Your task to perform on an android device: Turn on the flashlight Image 0: 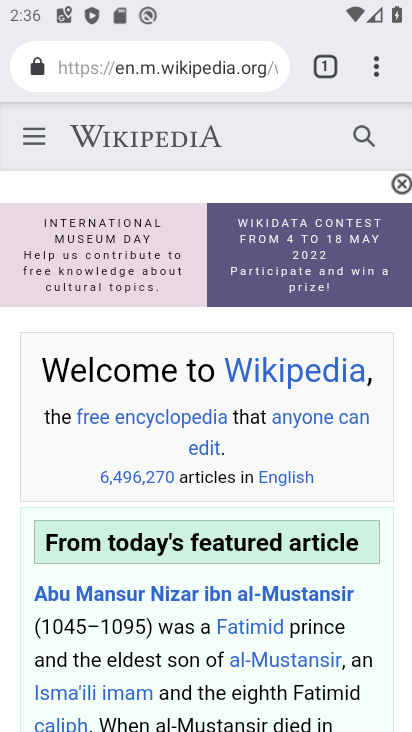
Step 0: press home button
Your task to perform on an android device: Turn on the flashlight Image 1: 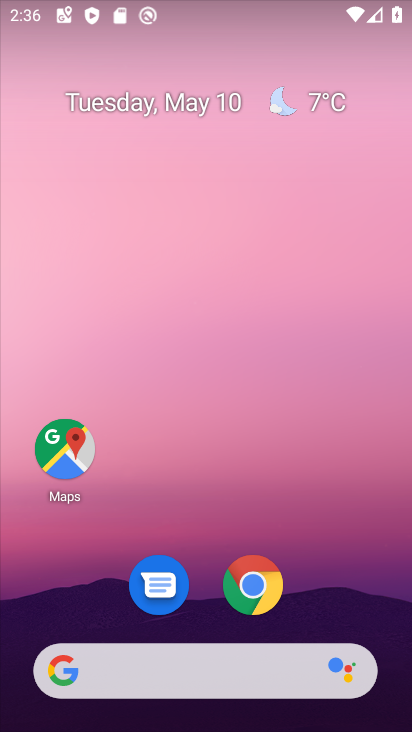
Step 1: drag from (281, 443) to (284, 60)
Your task to perform on an android device: Turn on the flashlight Image 2: 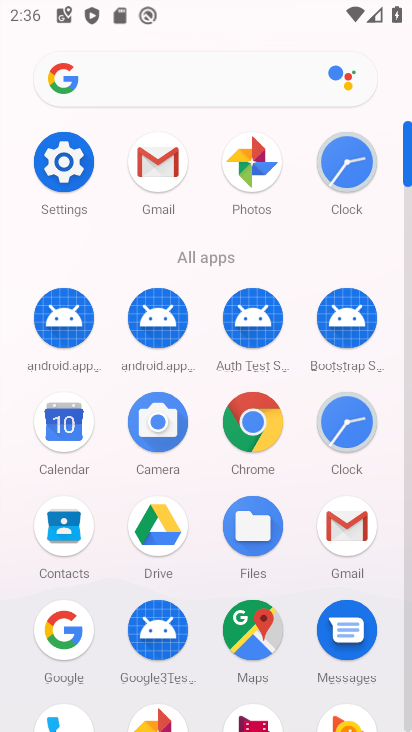
Step 2: click (79, 155)
Your task to perform on an android device: Turn on the flashlight Image 3: 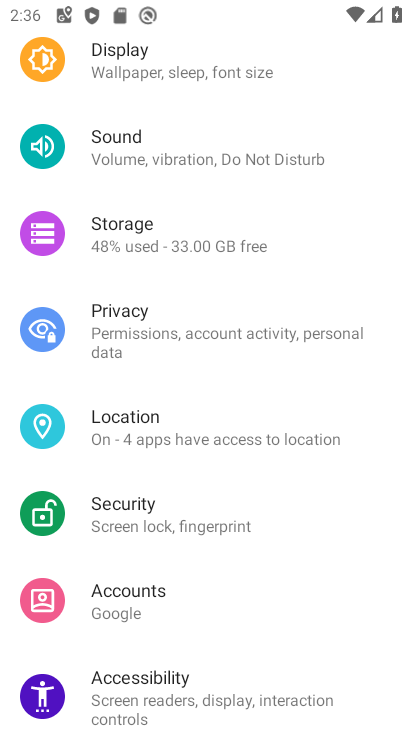
Step 3: drag from (202, 261) to (226, 677)
Your task to perform on an android device: Turn on the flashlight Image 4: 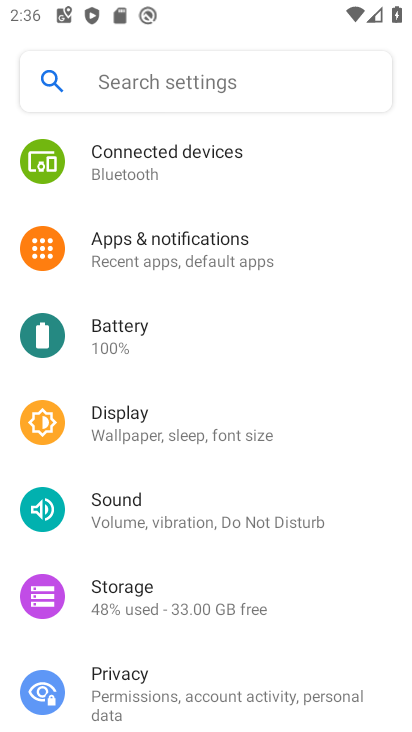
Step 4: drag from (230, 235) to (252, 699)
Your task to perform on an android device: Turn on the flashlight Image 5: 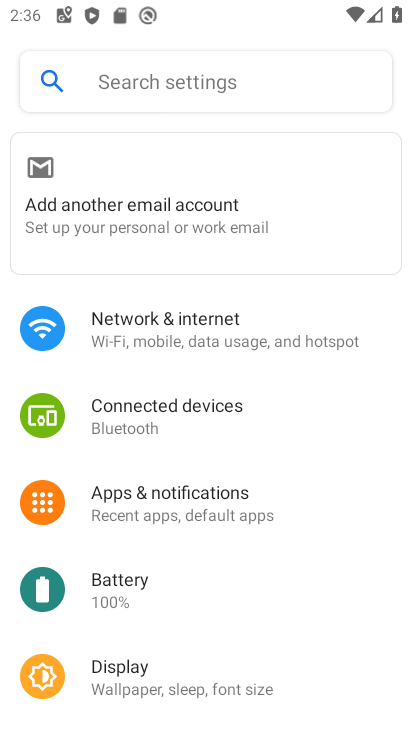
Step 5: click (269, 75)
Your task to perform on an android device: Turn on the flashlight Image 6: 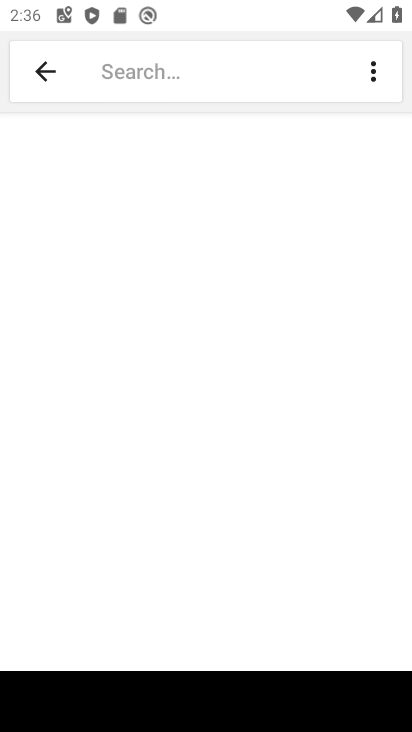
Step 6: type "Flashlight"
Your task to perform on an android device: Turn on the flashlight Image 7: 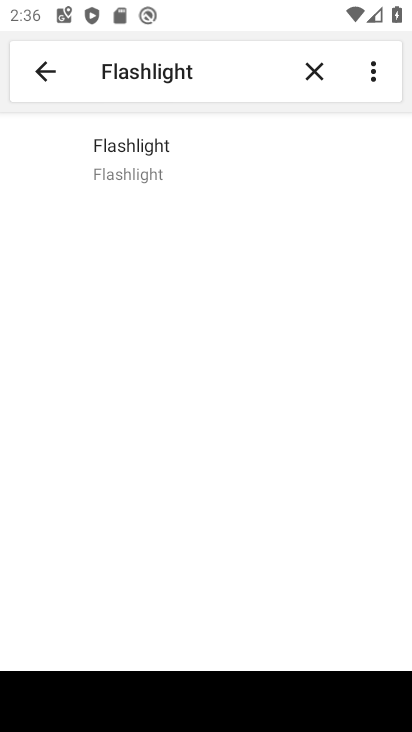
Step 7: click (148, 156)
Your task to perform on an android device: Turn on the flashlight Image 8: 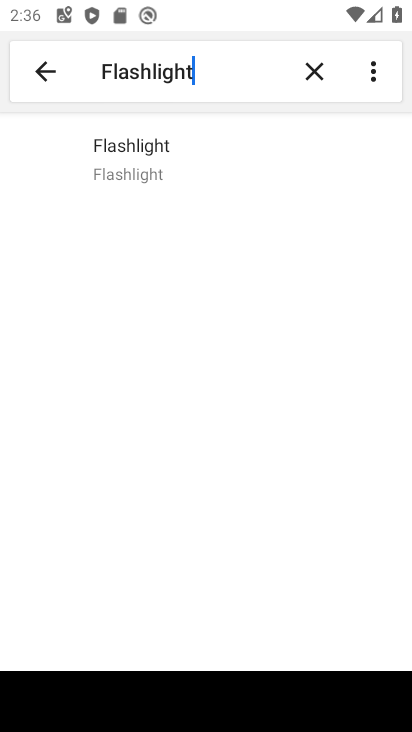
Step 8: click (150, 157)
Your task to perform on an android device: Turn on the flashlight Image 9: 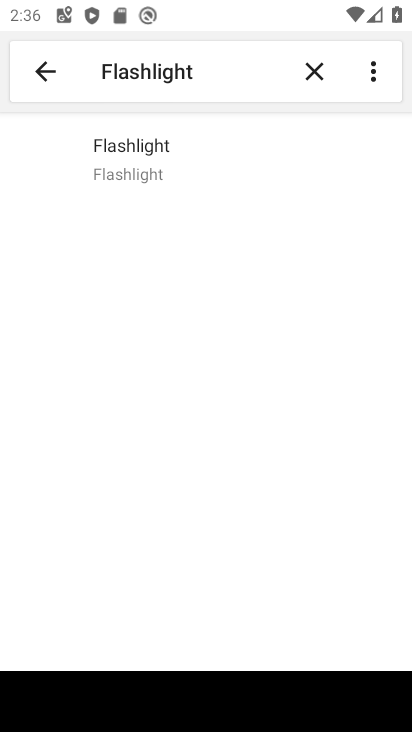
Step 9: click (150, 157)
Your task to perform on an android device: Turn on the flashlight Image 10: 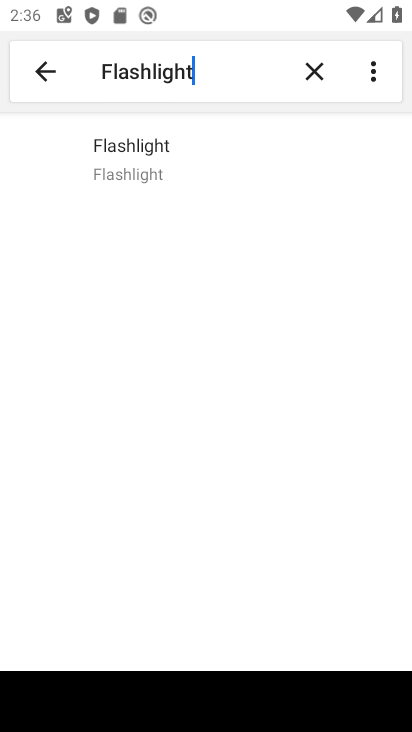
Step 10: task complete